Your task to perform on an android device: Open sound settings Image 0: 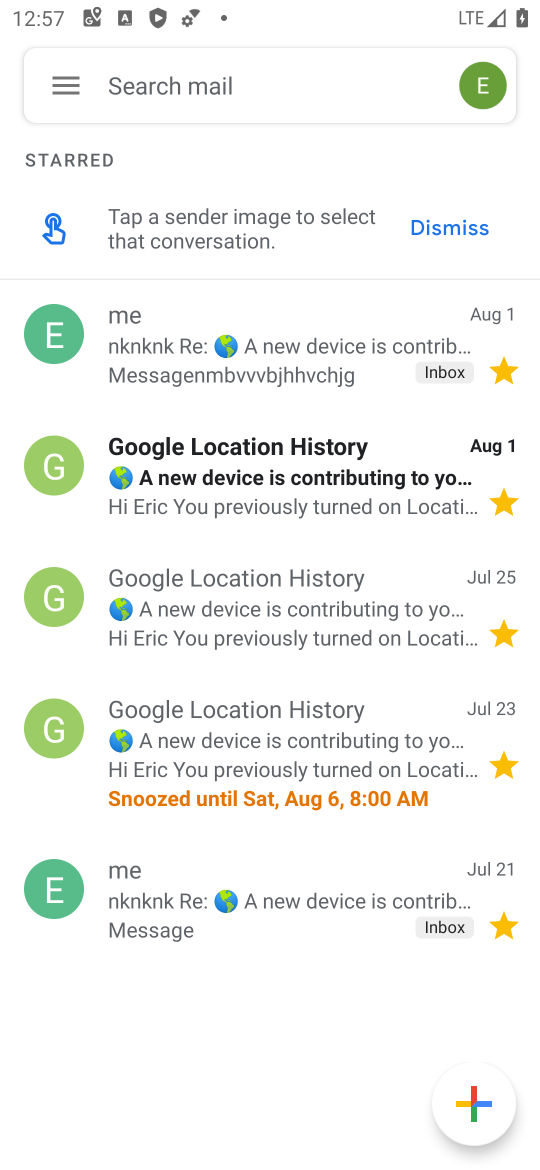
Step 0: press home button
Your task to perform on an android device: Open sound settings Image 1: 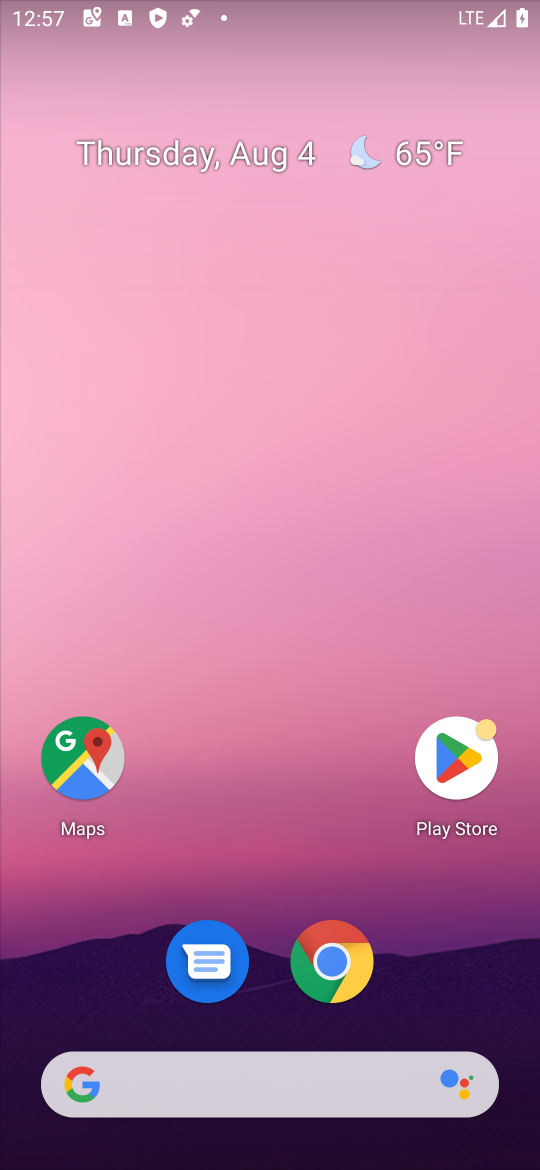
Step 1: drag from (239, 780) to (300, 0)
Your task to perform on an android device: Open sound settings Image 2: 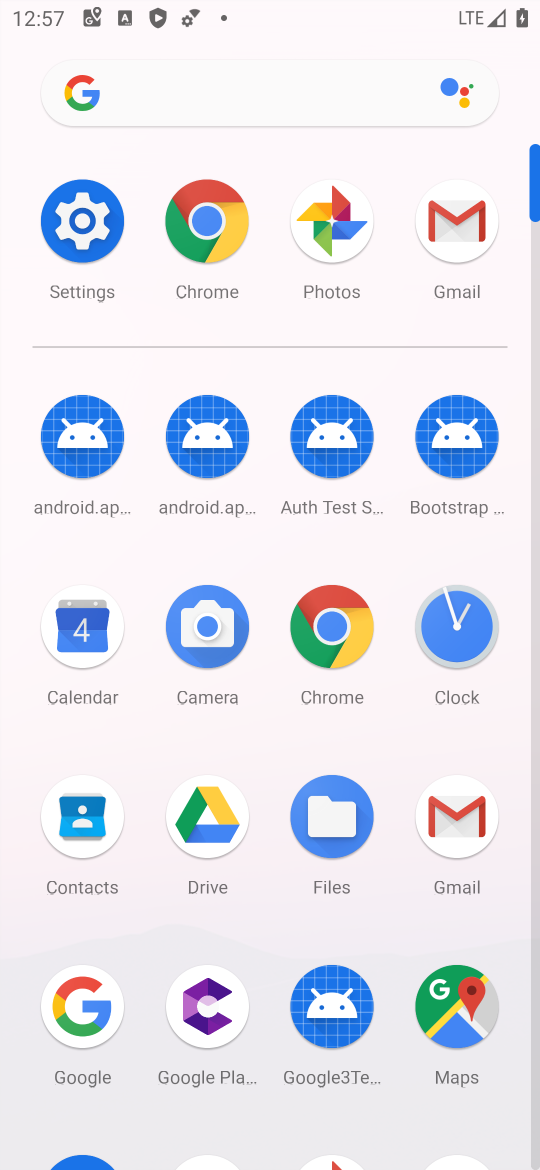
Step 2: click (86, 220)
Your task to perform on an android device: Open sound settings Image 3: 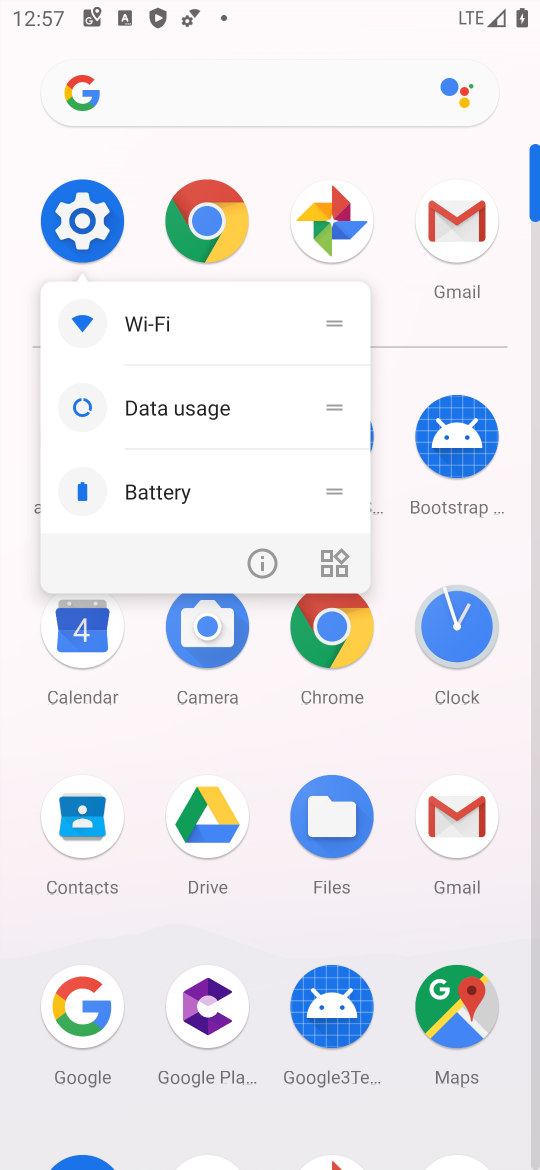
Step 3: click (86, 220)
Your task to perform on an android device: Open sound settings Image 4: 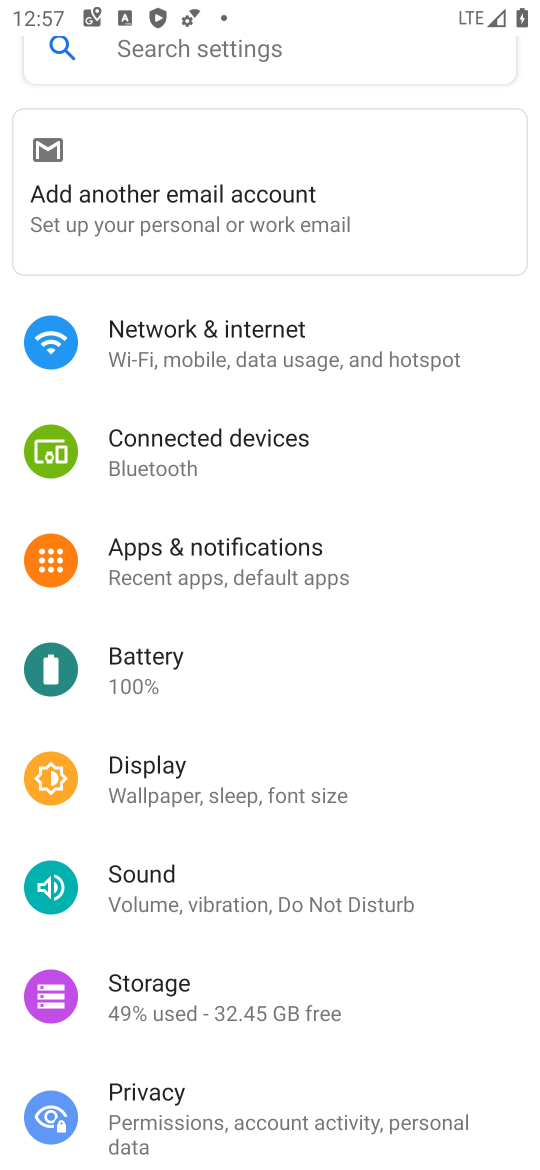
Step 4: click (165, 868)
Your task to perform on an android device: Open sound settings Image 5: 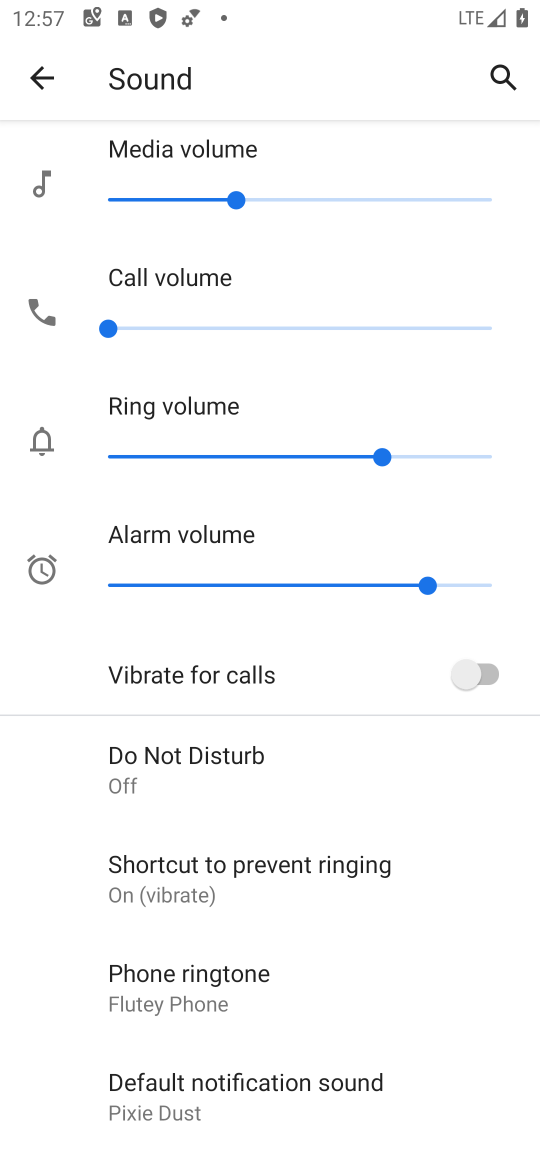
Step 5: task complete